Your task to perform on an android device: move a message to another label in the gmail app Image 0: 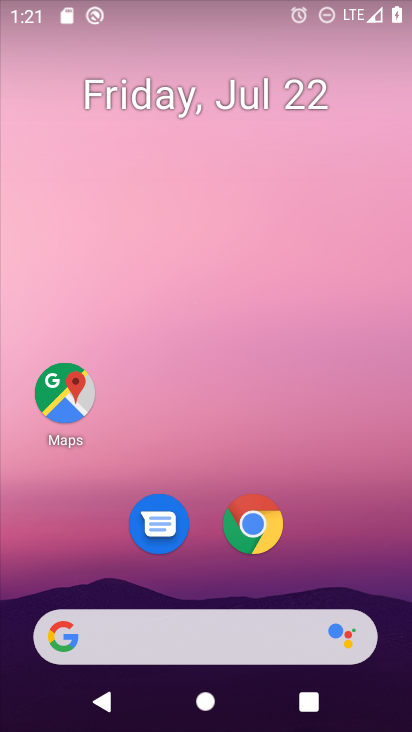
Step 0: drag from (321, 518) to (313, 9)
Your task to perform on an android device: move a message to another label in the gmail app Image 1: 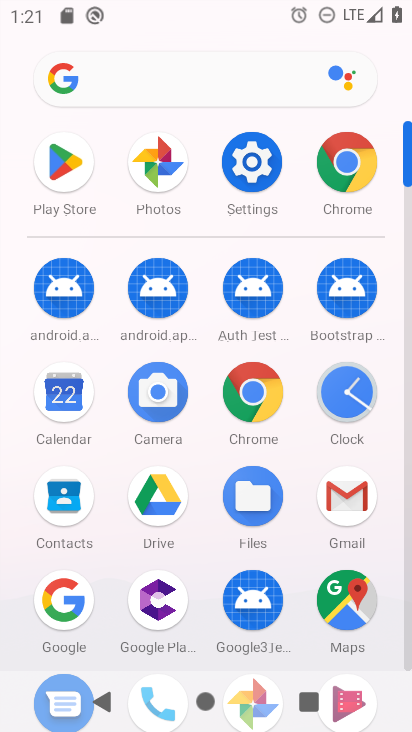
Step 1: click (355, 508)
Your task to perform on an android device: move a message to another label in the gmail app Image 2: 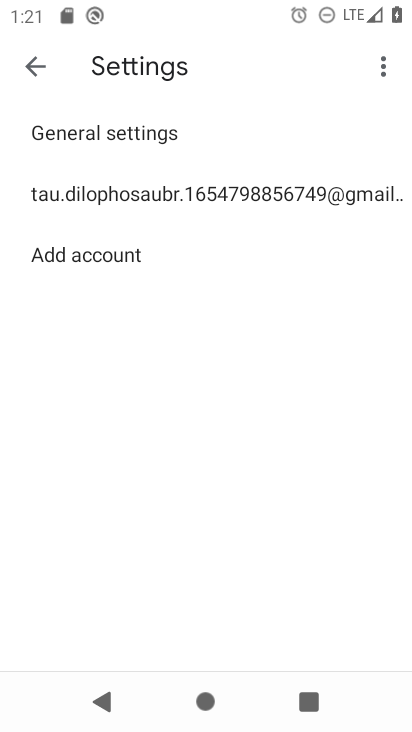
Step 2: click (44, 70)
Your task to perform on an android device: move a message to another label in the gmail app Image 3: 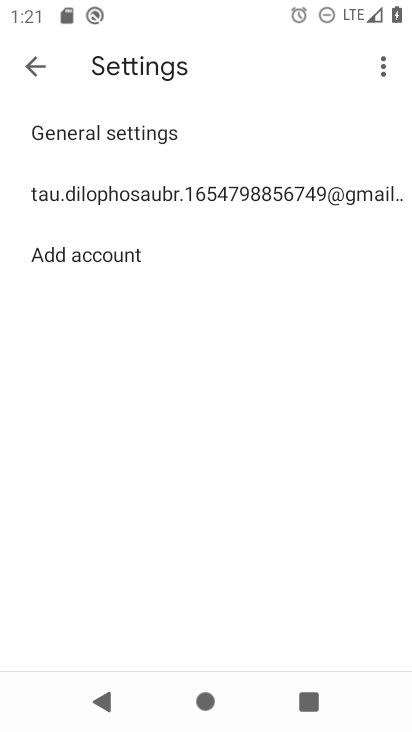
Step 3: click (43, 62)
Your task to perform on an android device: move a message to another label in the gmail app Image 4: 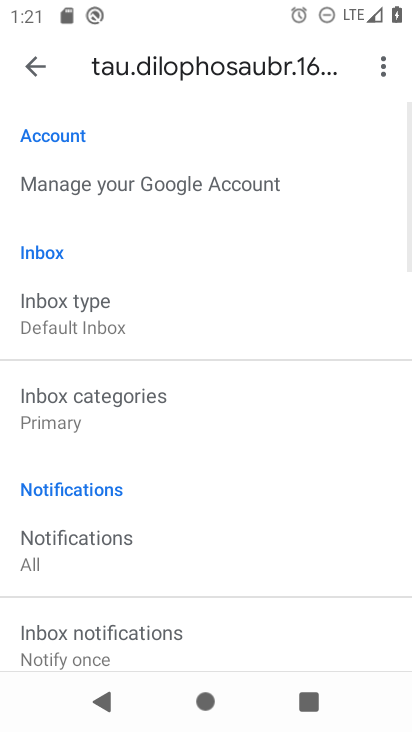
Step 4: click (37, 62)
Your task to perform on an android device: move a message to another label in the gmail app Image 5: 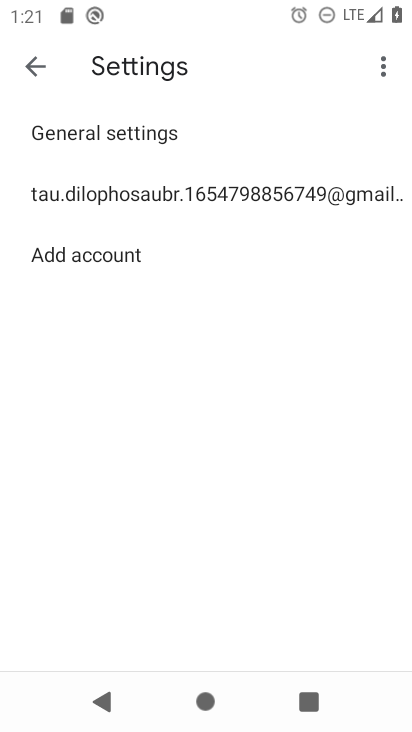
Step 5: click (37, 64)
Your task to perform on an android device: move a message to another label in the gmail app Image 6: 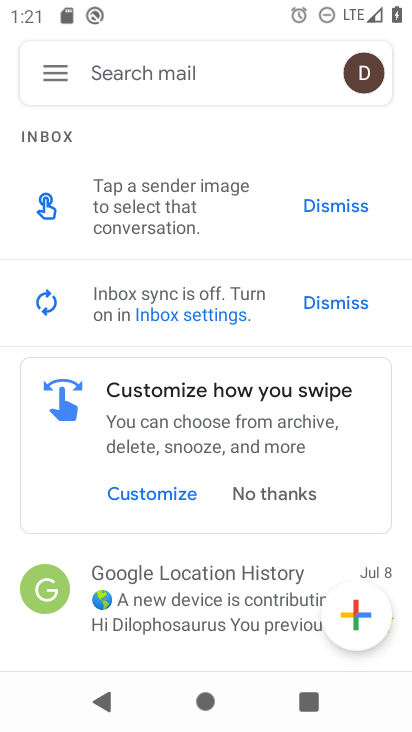
Step 6: click (229, 586)
Your task to perform on an android device: move a message to another label in the gmail app Image 7: 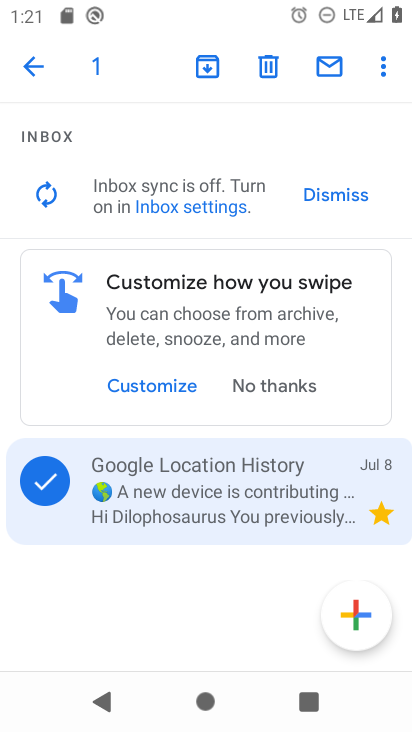
Step 7: click (295, 387)
Your task to perform on an android device: move a message to another label in the gmail app Image 8: 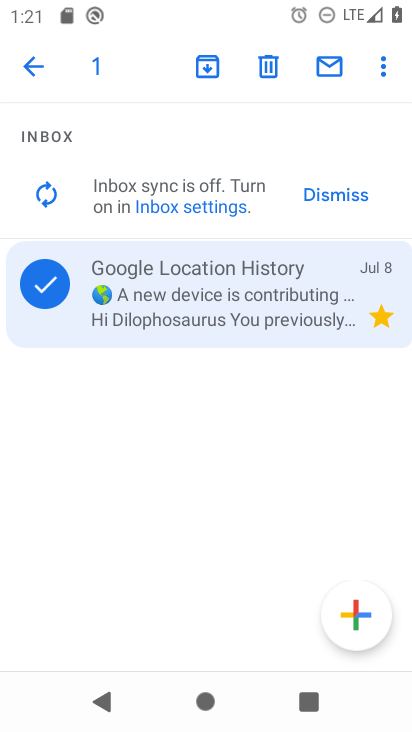
Step 8: click (253, 288)
Your task to perform on an android device: move a message to another label in the gmail app Image 9: 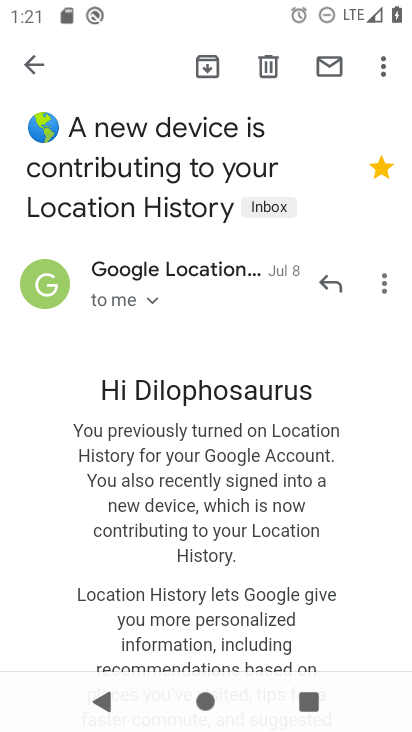
Step 9: click (384, 74)
Your task to perform on an android device: move a message to another label in the gmail app Image 10: 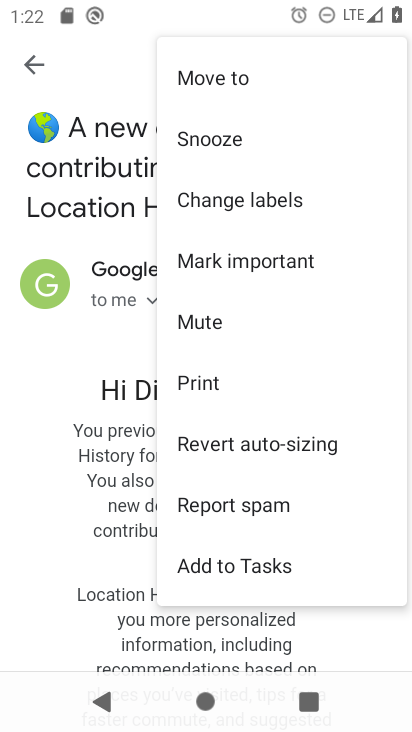
Step 10: click (223, 72)
Your task to perform on an android device: move a message to another label in the gmail app Image 11: 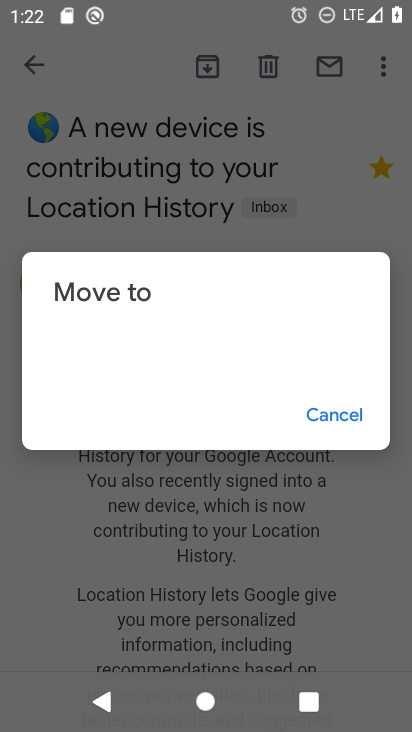
Step 11: click (188, 324)
Your task to perform on an android device: move a message to another label in the gmail app Image 12: 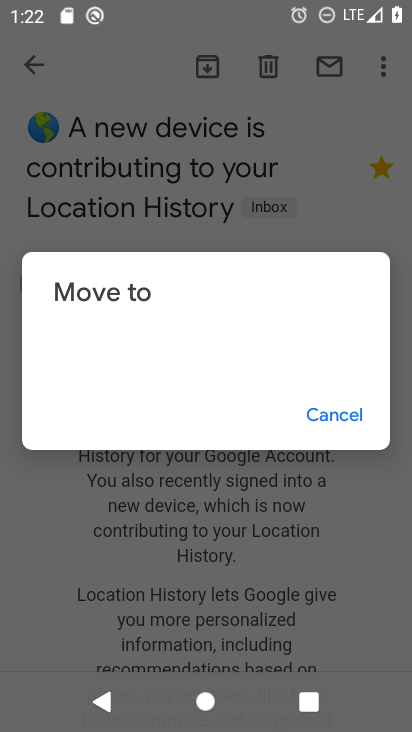
Step 12: click (337, 416)
Your task to perform on an android device: move a message to another label in the gmail app Image 13: 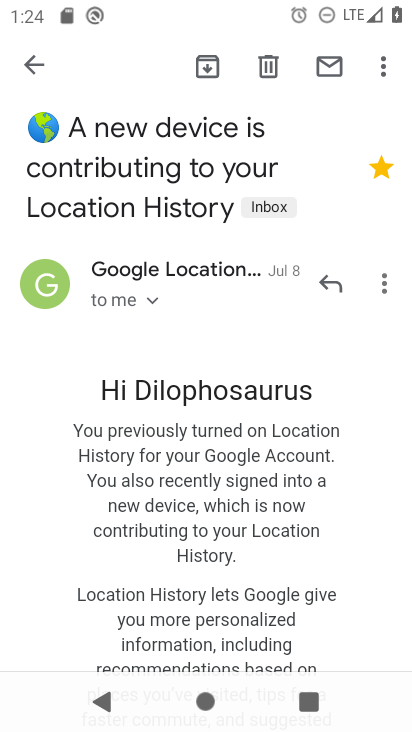
Step 13: task complete